Your task to perform on an android device: open chrome privacy settings Image 0: 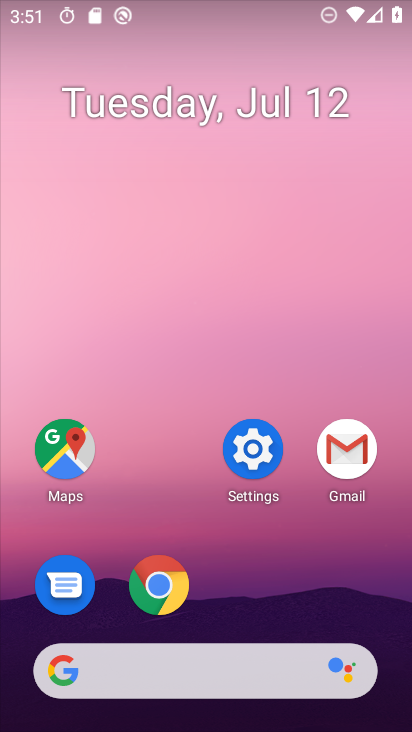
Step 0: click (247, 458)
Your task to perform on an android device: open chrome privacy settings Image 1: 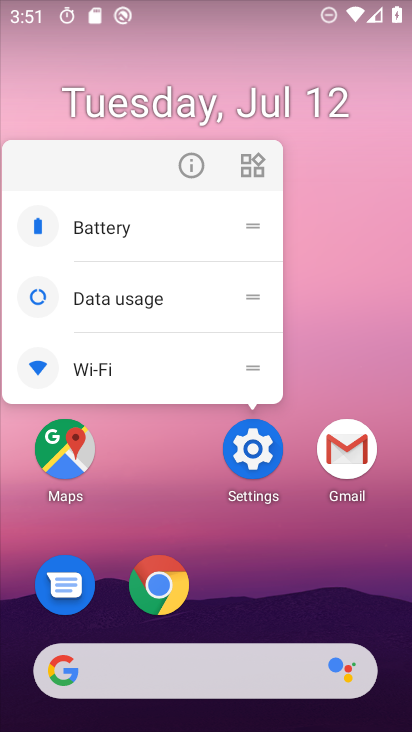
Step 1: click (247, 462)
Your task to perform on an android device: open chrome privacy settings Image 2: 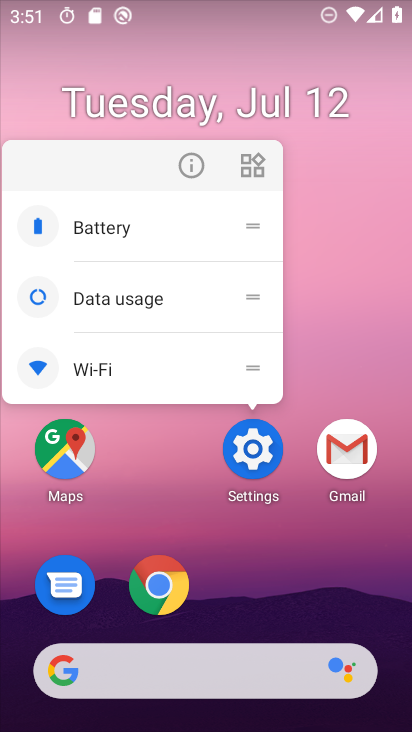
Step 2: click (235, 457)
Your task to perform on an android device: open chrome privacy settings Image 3: 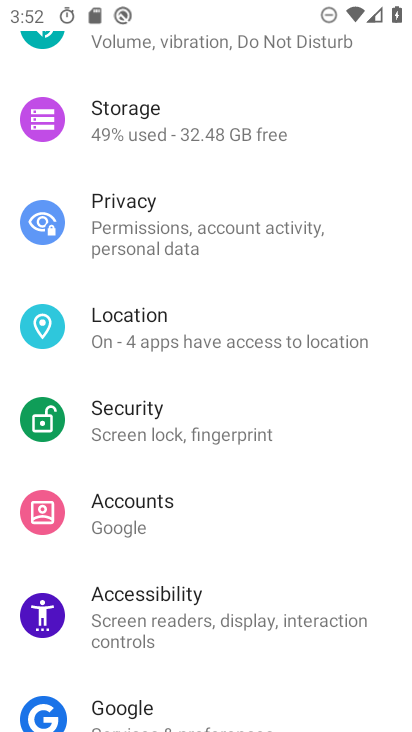
Step 3: click (184, 223)
Your task to perform on an android device: open chrome privacy settings Image 4: 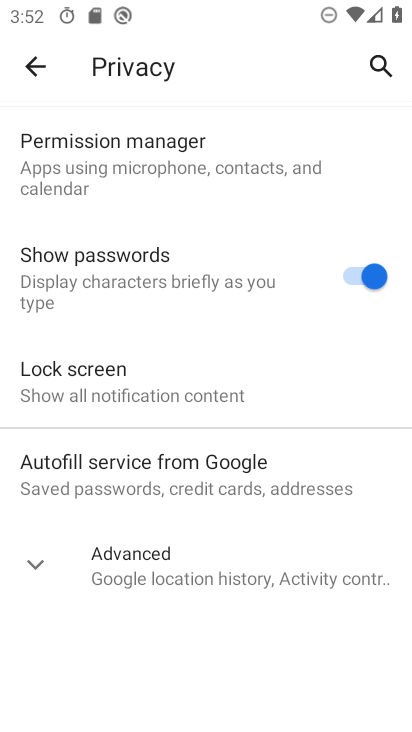
Step 4: task complete